Your task to perform on an android device: delete location history Image 0: 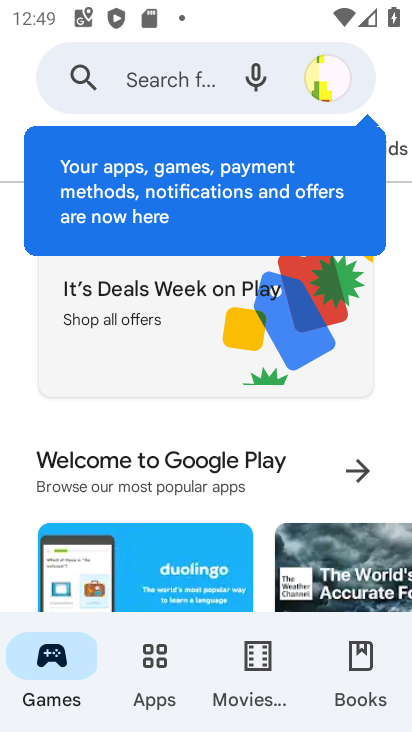
Step 0: press home button
Your task to perform on an android device: delete location history Image 1: 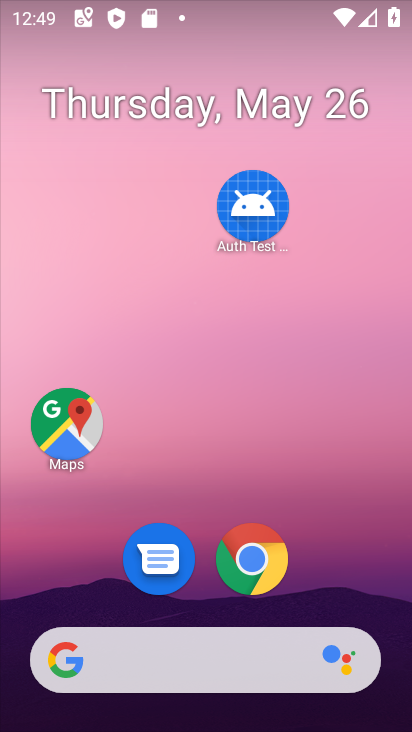
Step 1: drag from (327, 562) to (316, 1)
Your task to perform on an android device: delete location history Image 2: 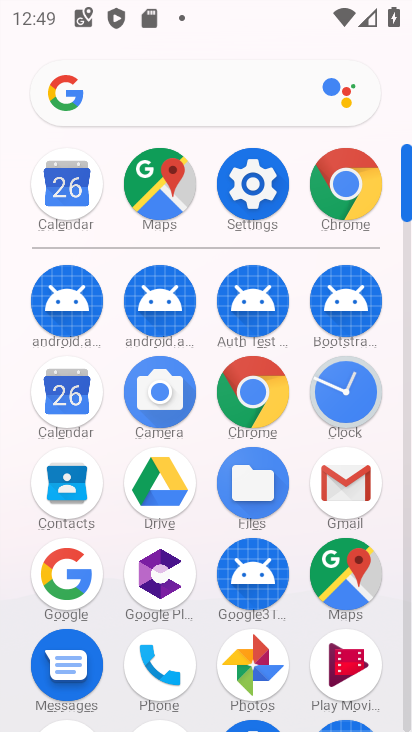
Step 2: click (197, 623)
Your task to perform on an android device: delete location history Image 3: 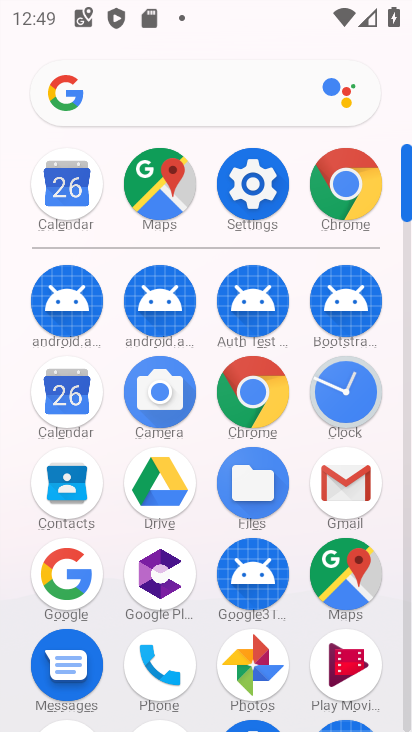
Step 3: click (253, 185)
Your task to perform on an android device: delete location history Image 4: 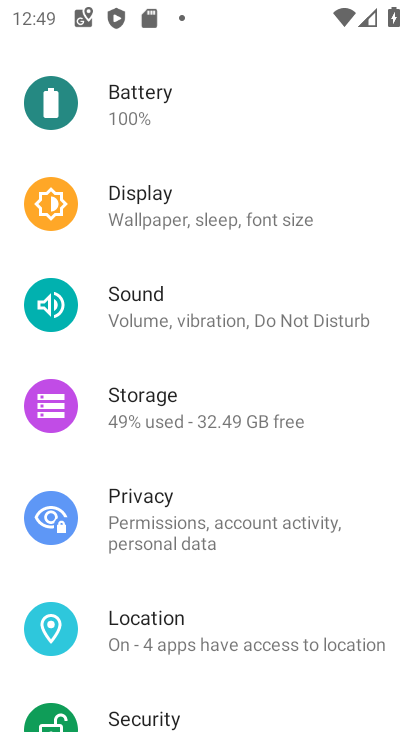
Step 4: drag from (215, 640) to (171, 420)
Your task to perform on an android device: delete location history Image 5: 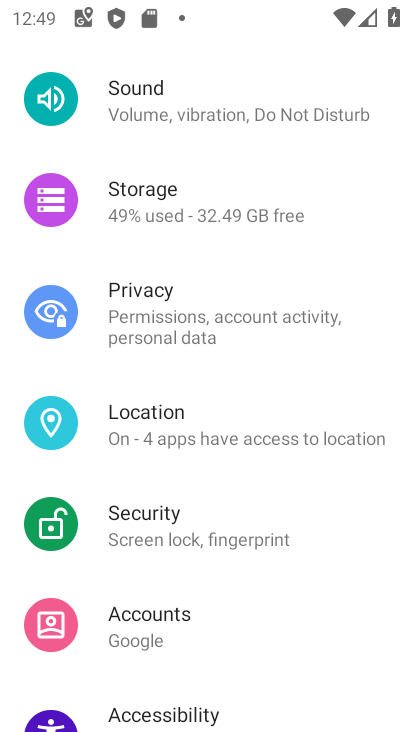
Step 5: click (171, 418)
Your task to perform on an android device: delete location history Image 6: 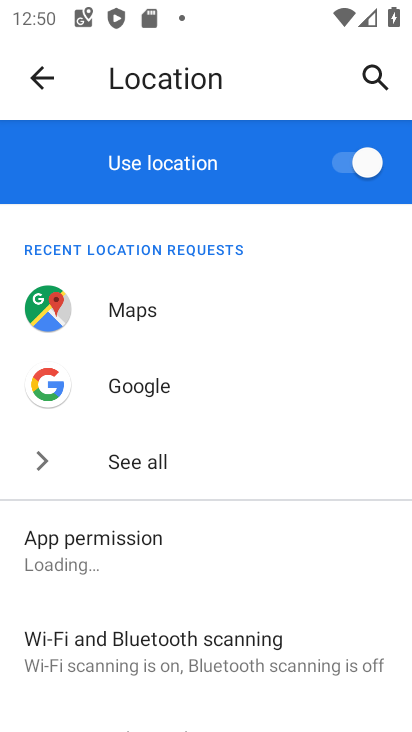
Step 6: drag from (236, 654) to (219, 405)
Your task to perform on an android device: delete location history Image 7: 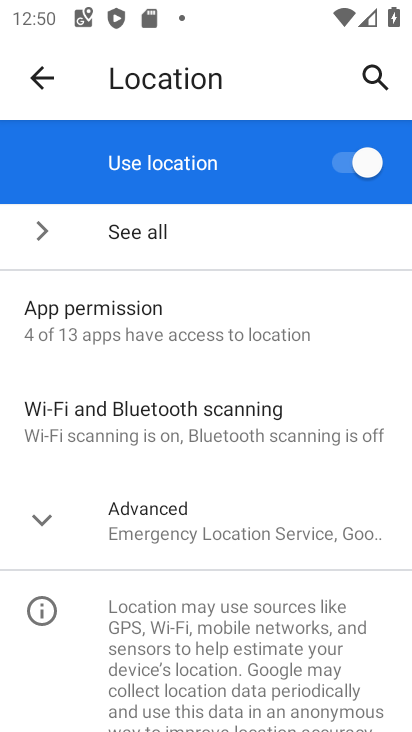
Step 7: click (215, 517)
Your task to perform on an android device: delete location history Image 8: 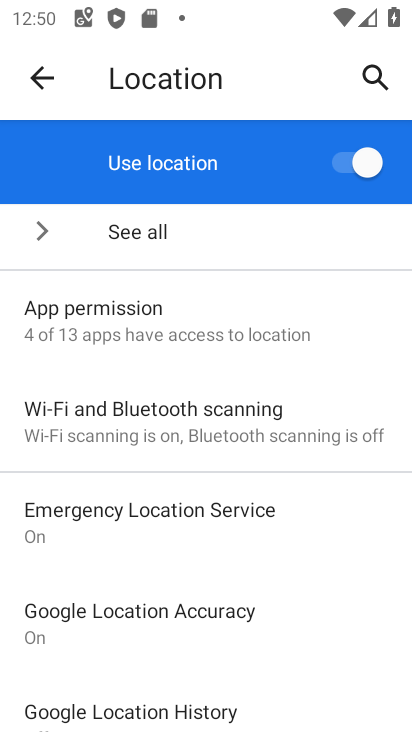
Step 8: click (226, 716)
Your task to perform on an android device: delete location history Image 9: 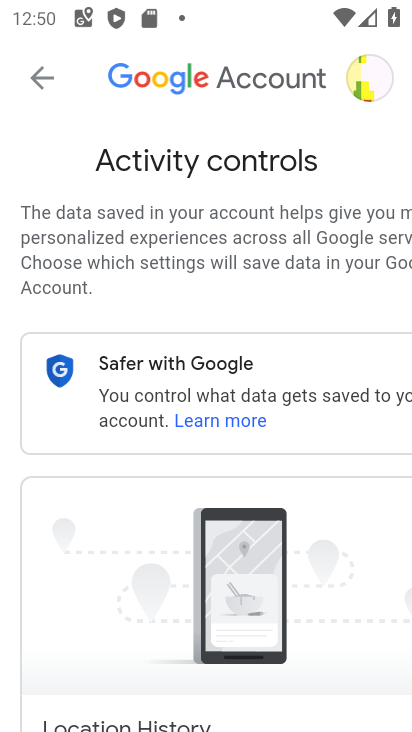
Step 9: drag from (227, 673) to (208, 396)
Your task to perform on an android device: delete location history Image 10: 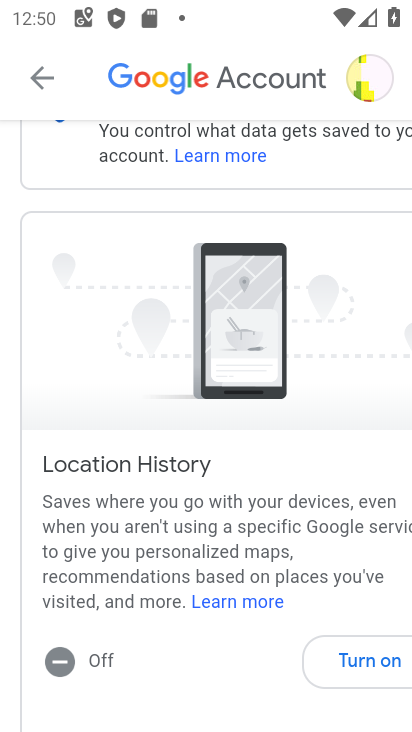
Step 10: drag from (236, 625) to (214, 287)
Your task to perform on an android device: delete location history Image 11: 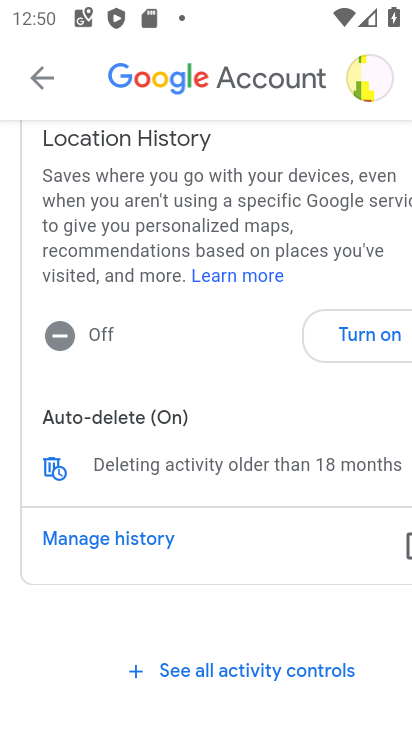
Step 11: click (169, 532)
Your task to perform on an android device: delete location history Image 12: 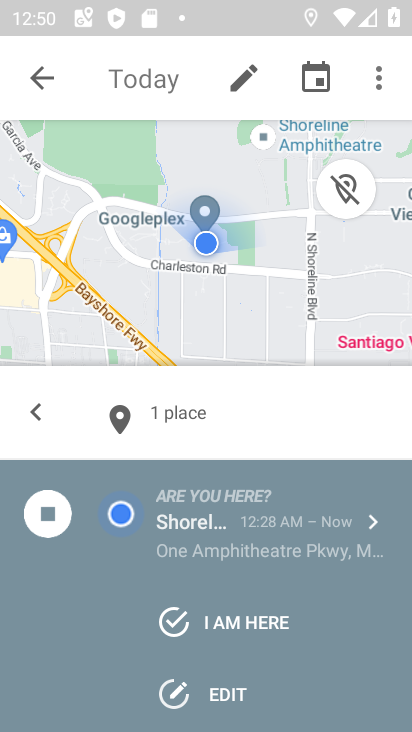
Step 12: click (381, 82)
Your task to perform on an android device: delete location history Image 13: 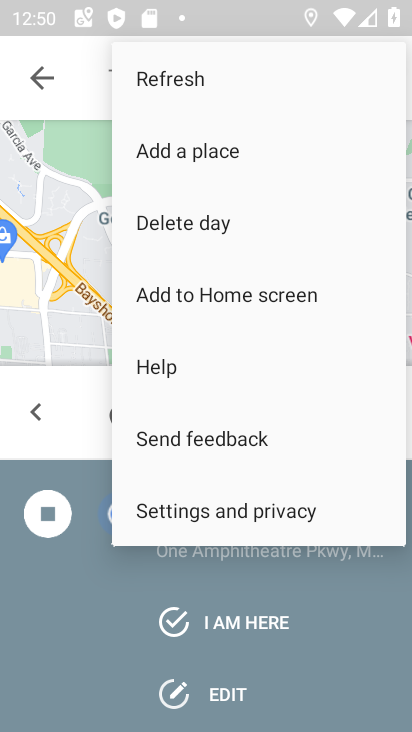
Step 13: click (242, 209)
Your task to perform on an android device: delete location history Image 14: 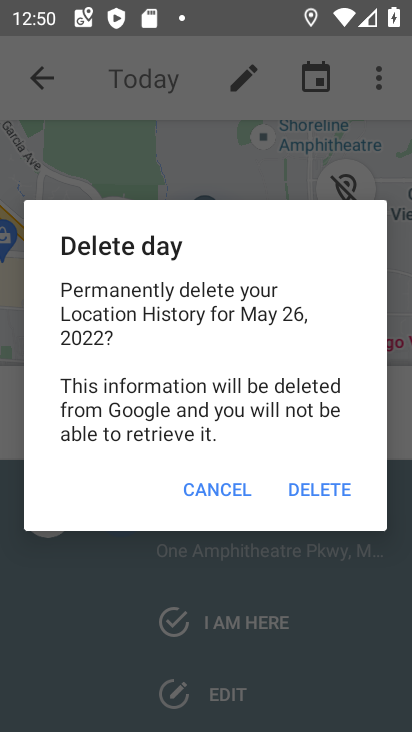
Step 14: click (312, 486)
Your task to perform on an android device: delete location history Image 15: 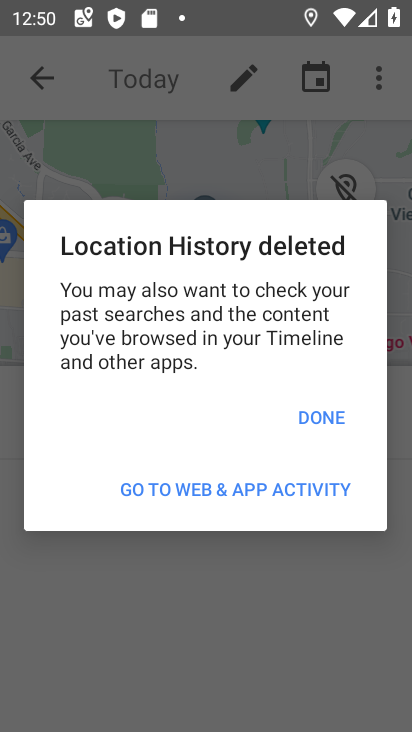
Step 15: click (338, 417)
Your task to perform on an android device: delete location history Image 16: 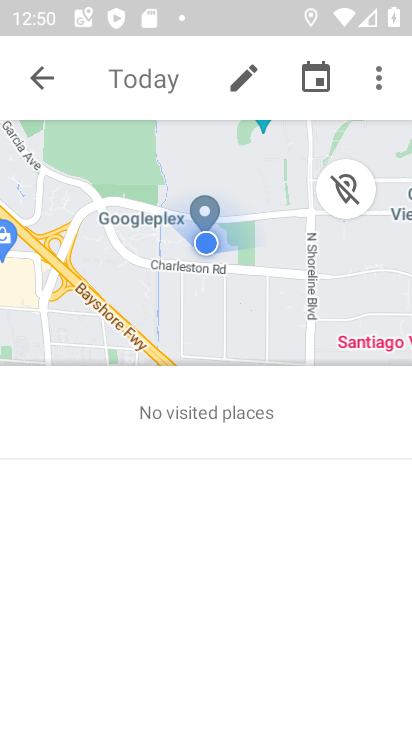
Step 16: task complete